Your task to perform on an android device: Go to Yahoo.com Image 0: 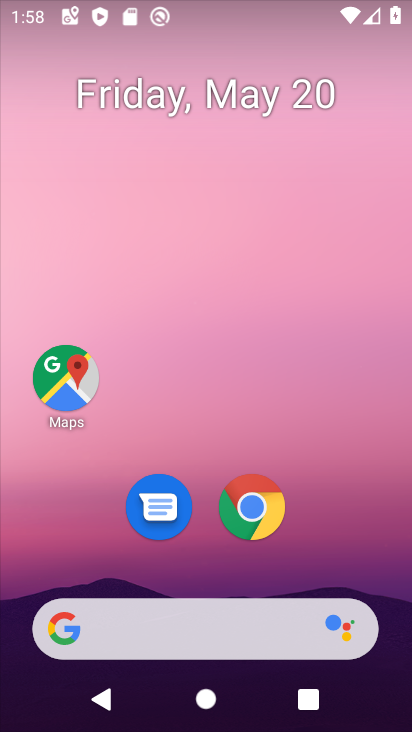
Step 0: click (247, 502)
Your task to perform on an android device: Go to Yahoo.com Image 1: 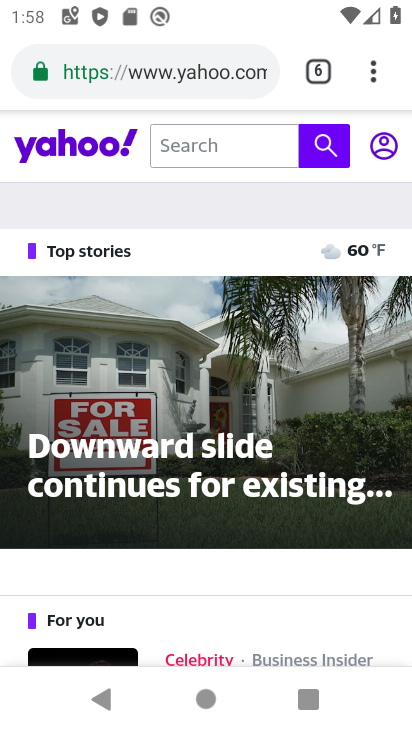
Step 1: task complete